Your task to perform on an android device: open app "Venmo" Image 0: 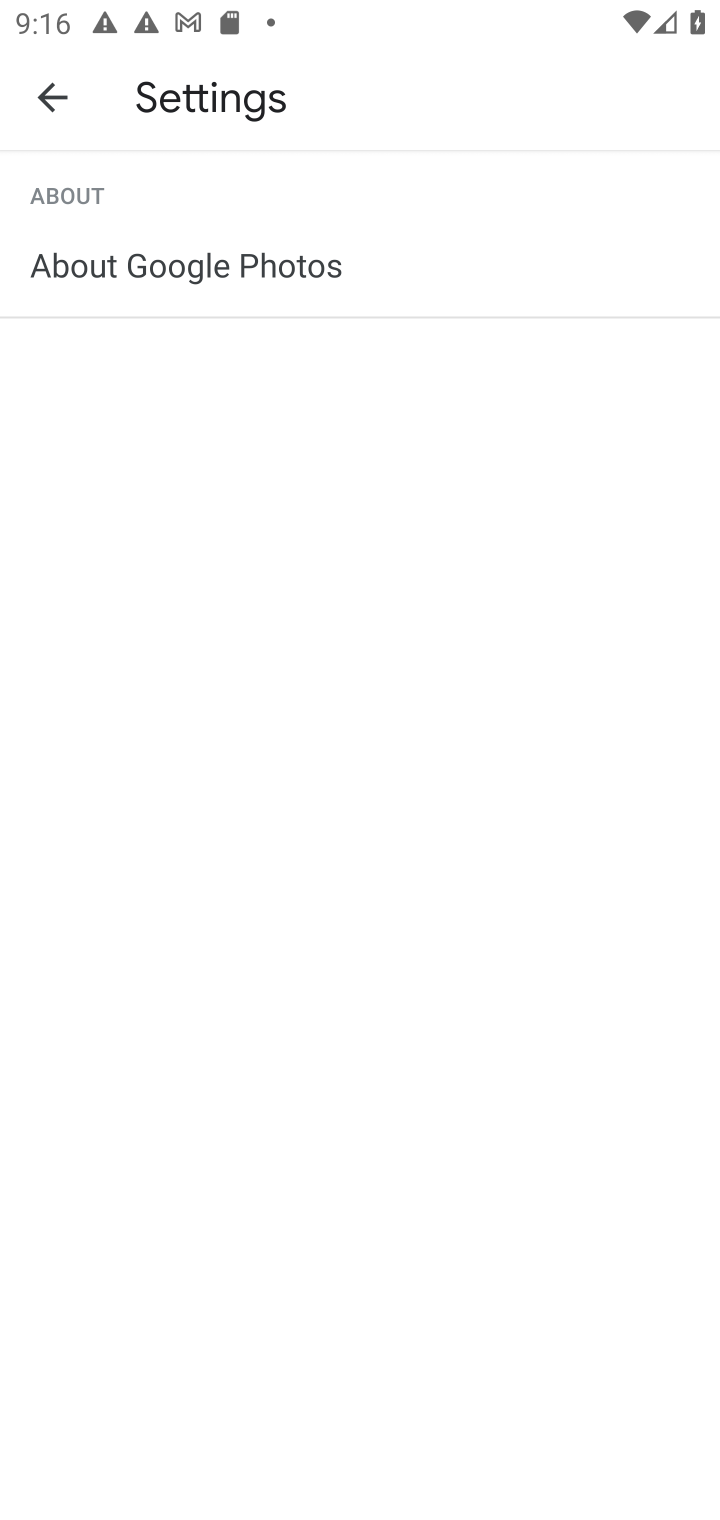
Step 0: press home button
Your task to perform on an android device: open app "Venmo" Image 1: 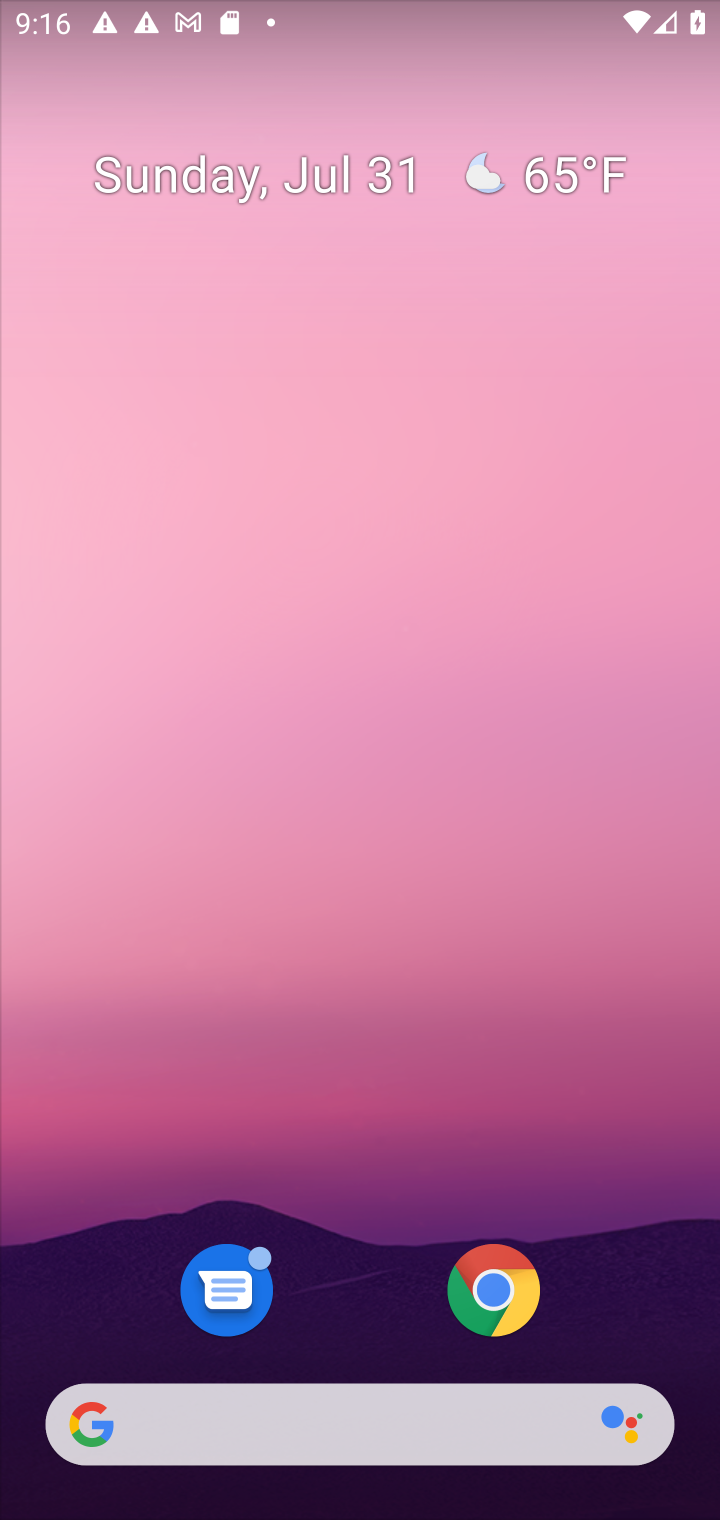
Step 1: drag from (581, 930) to (603, 150)
Your task to perform on an android device: open app "Venmo" Image 2: 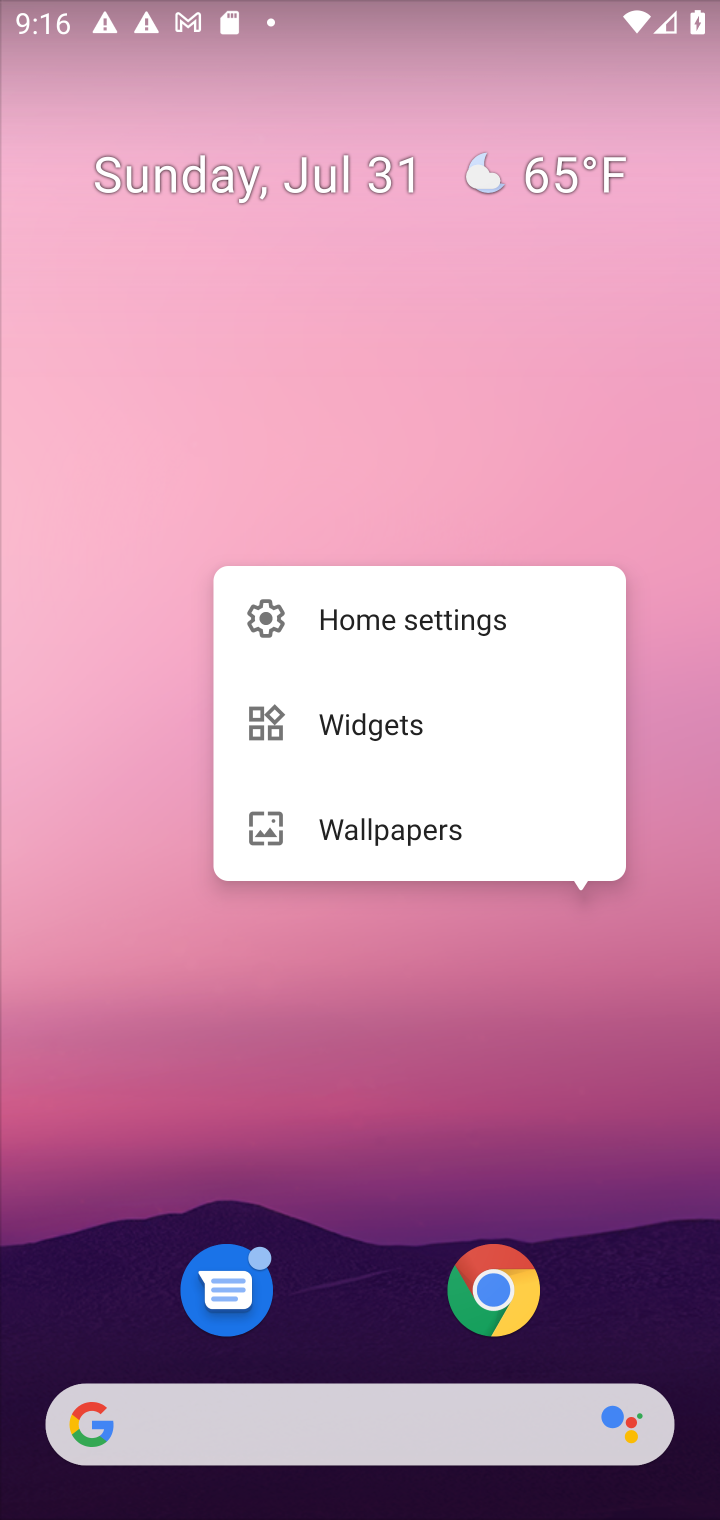
Step 2: click (552, 1212)
Your task to perform on an android device: open app "Venmo" Image 3: 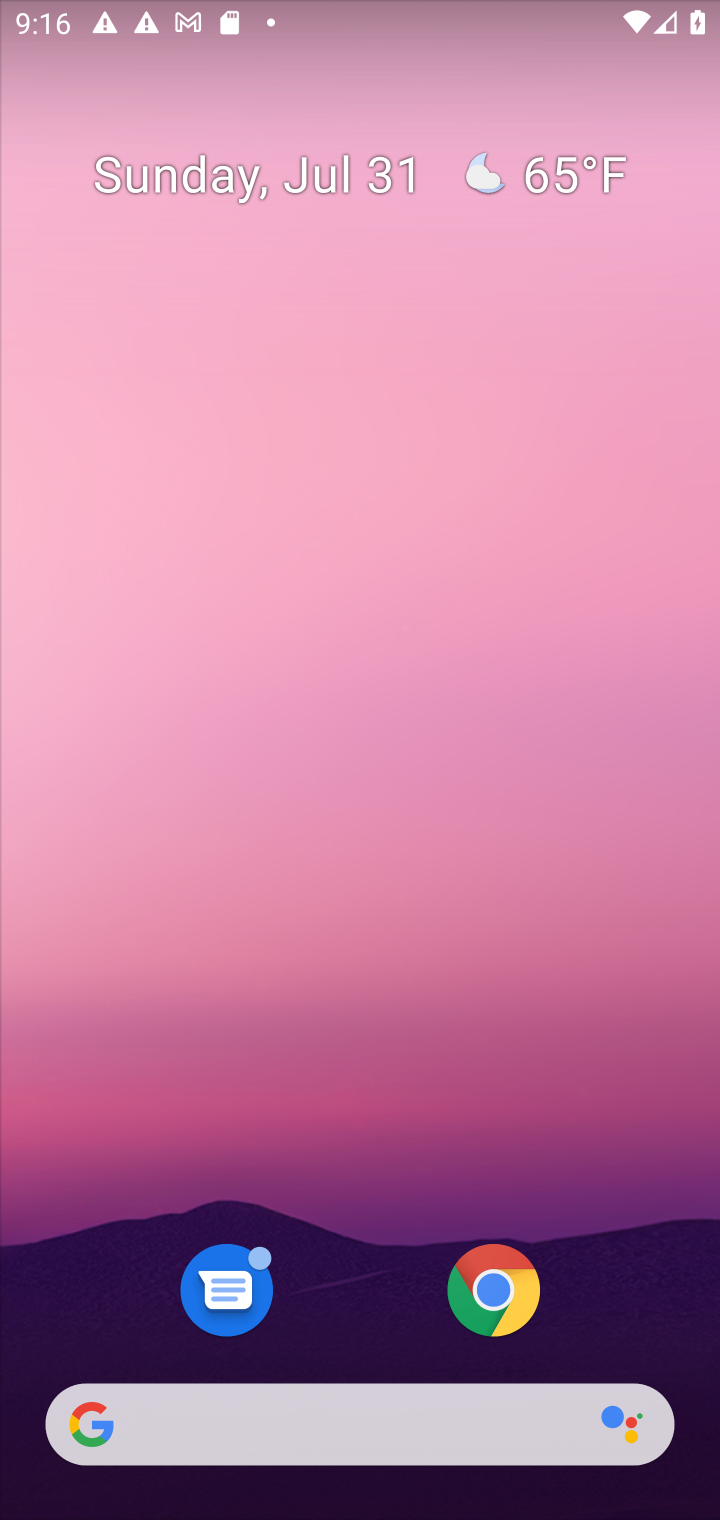
Step 3: drag from (590, 1080) to (587, 75)
Your task to perform on an android device: open app "Venmo" Image 4: 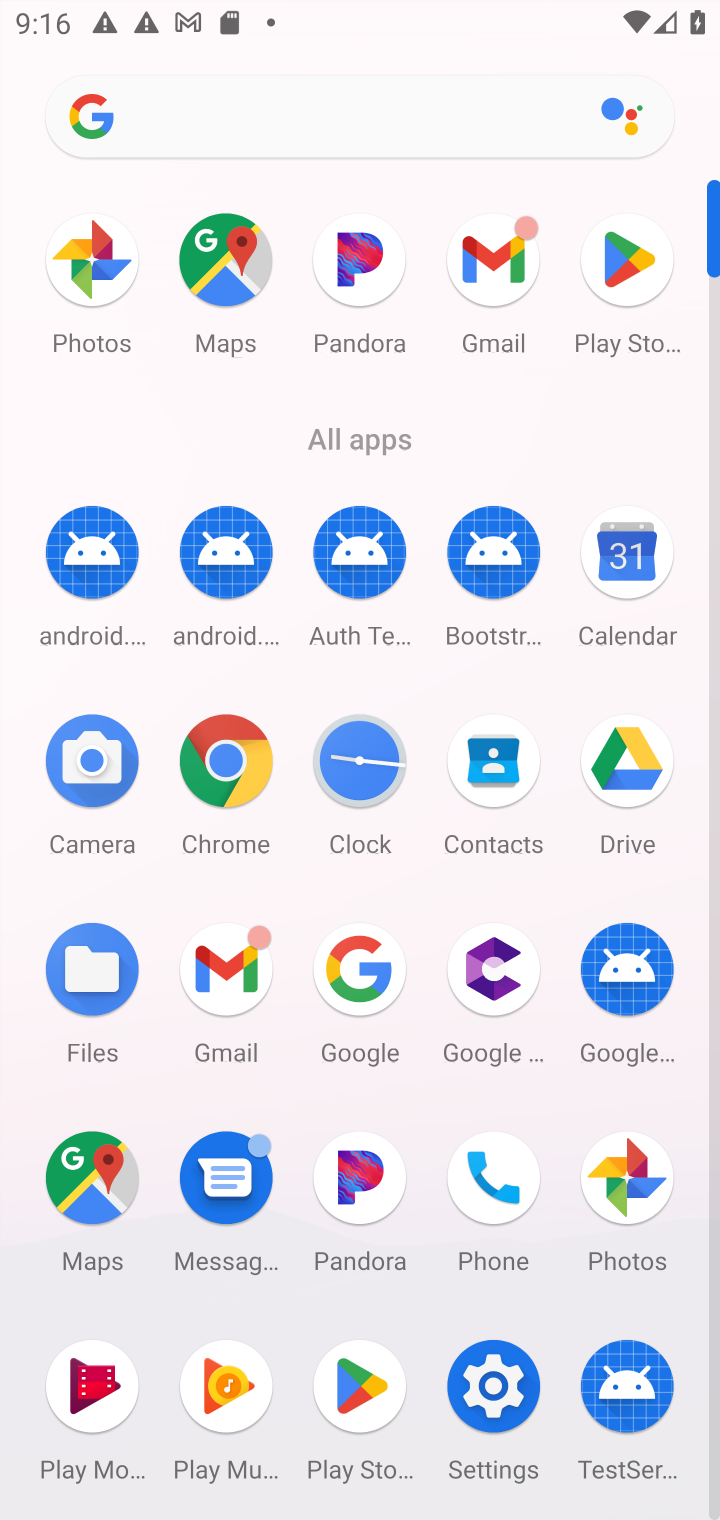
Step 4: click (620, 258)
Your task to perform on an android device: open app "Venmo" Image 5: 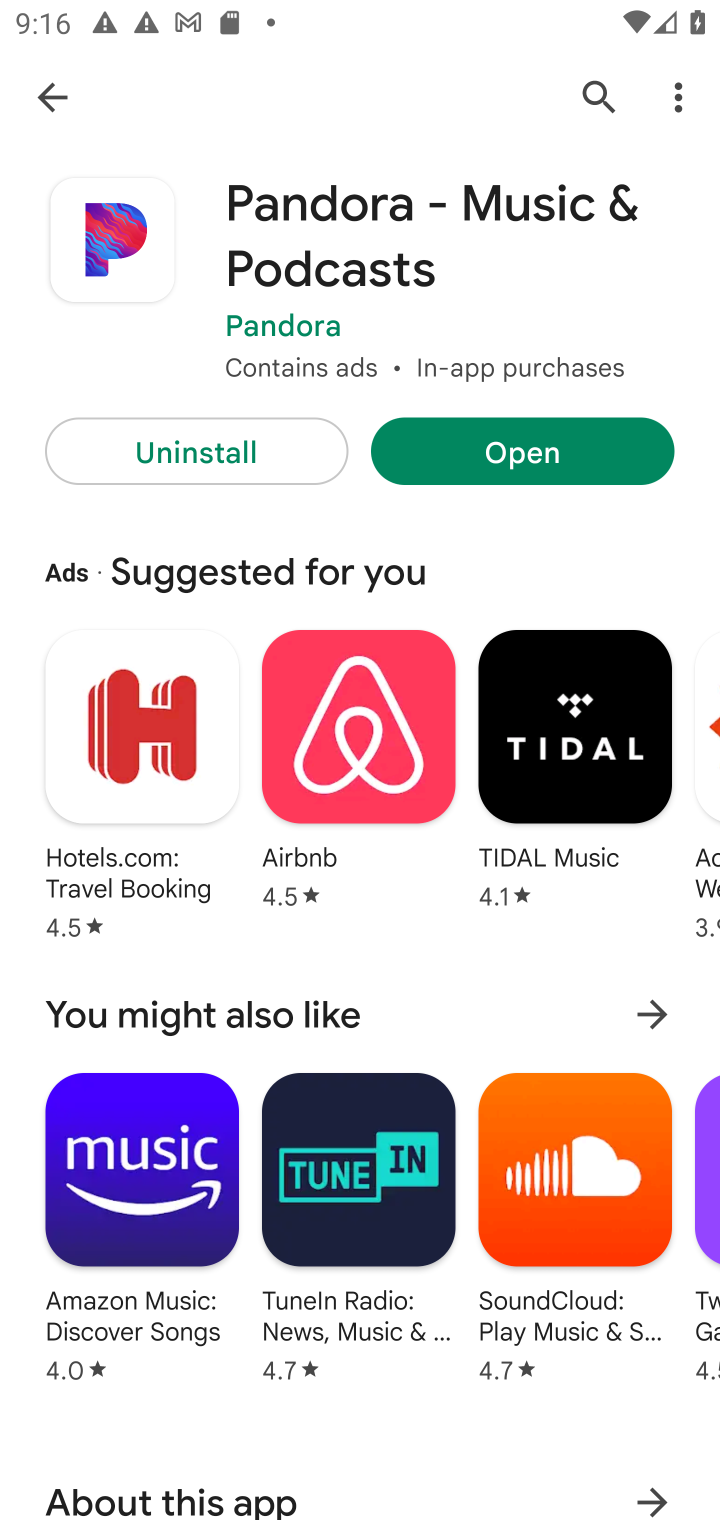
Step 5: press back button
Your task to perform on an android device: open app "Venmo" Image 6: 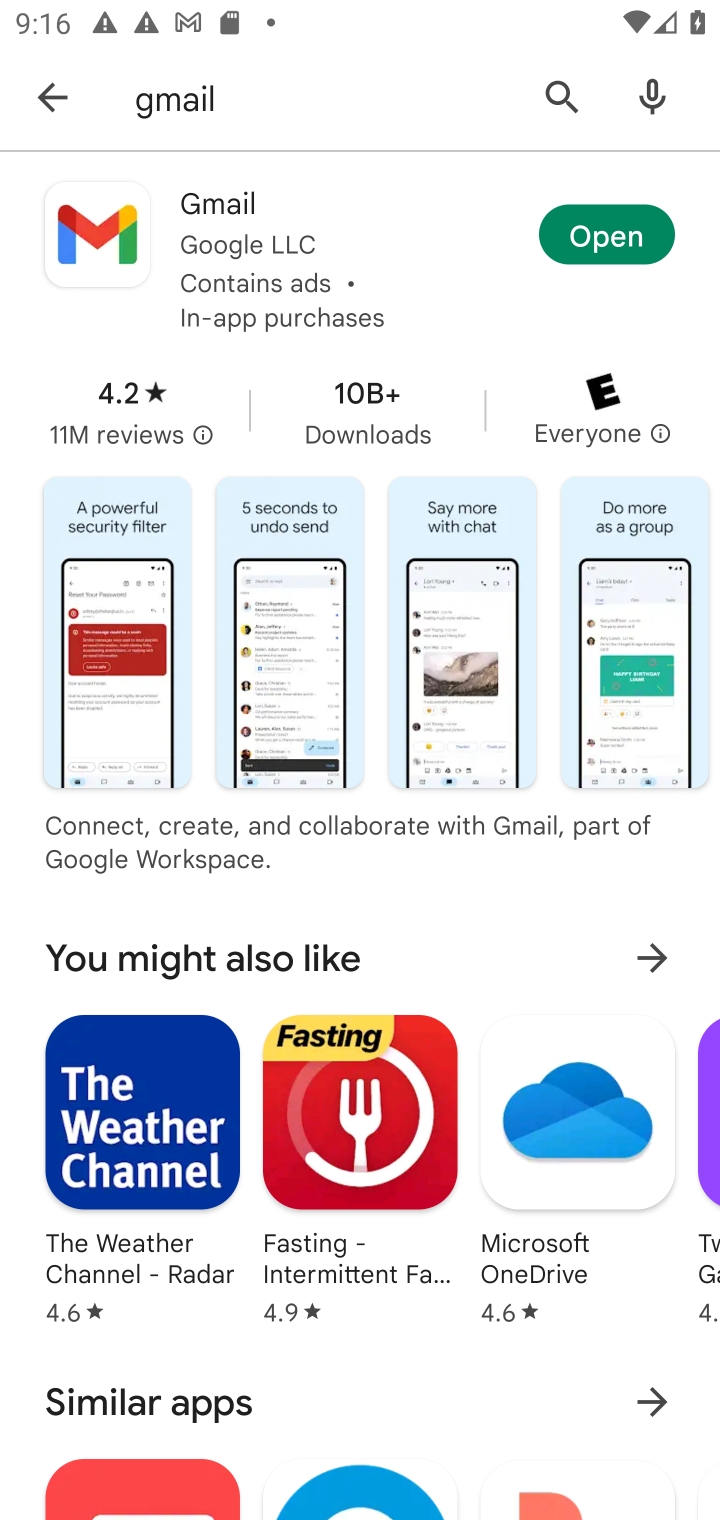
Step 6: click (542, 89)
Your task to perform on an android device: open app "Venmo" Image 7: 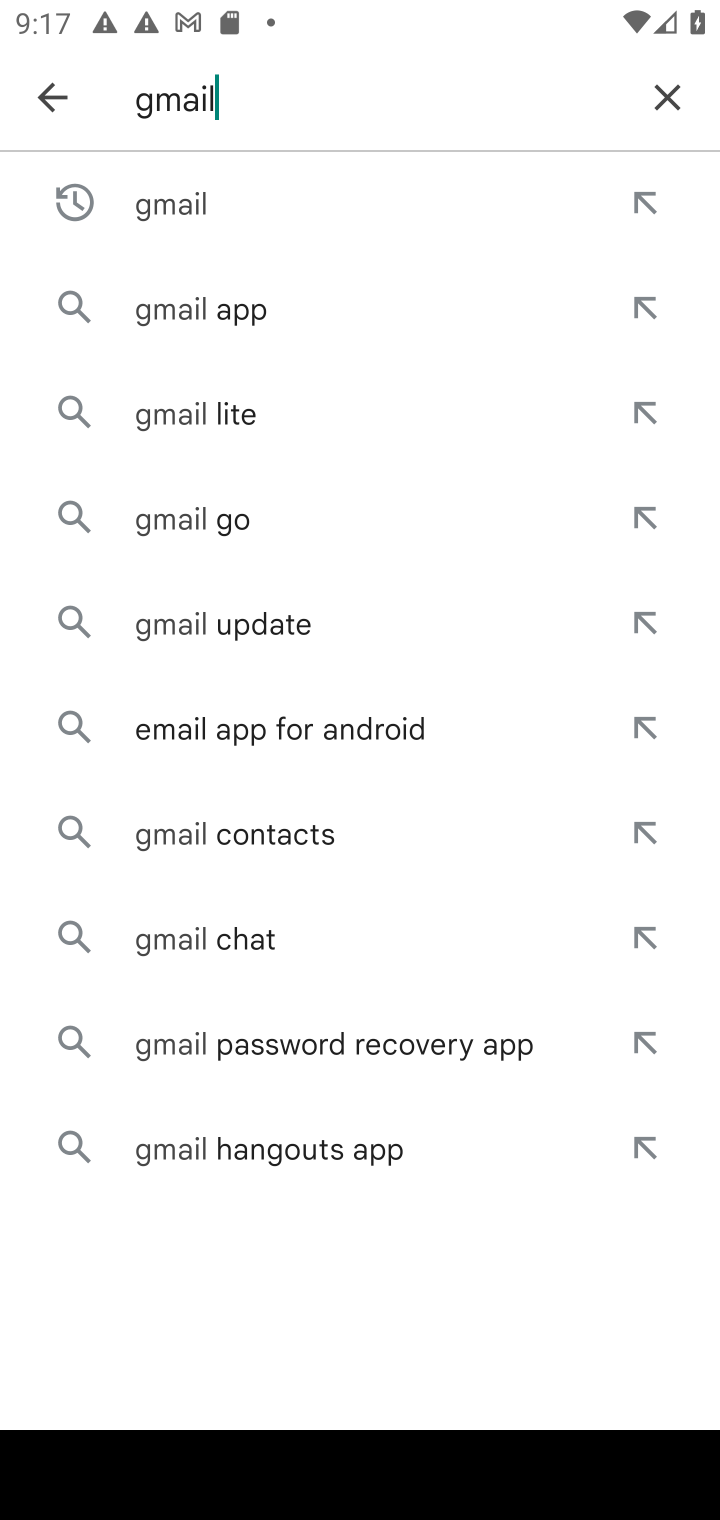
Step 7: click (679, 92)
Your task to perform on an android device: open app "Venmo" Image 8: 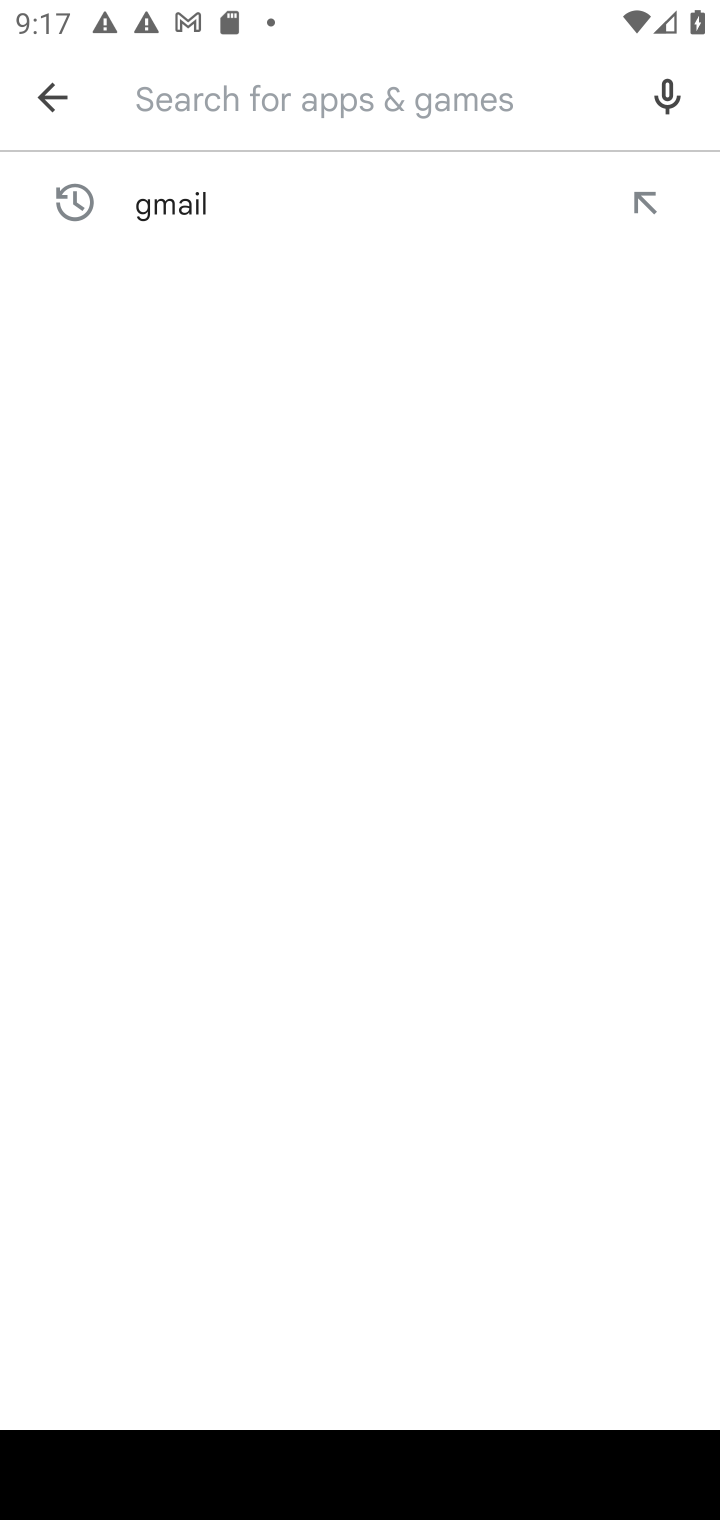
Step 8: type "venmo"
Your task to perform on an android device: open app "Venmo" Image 9: 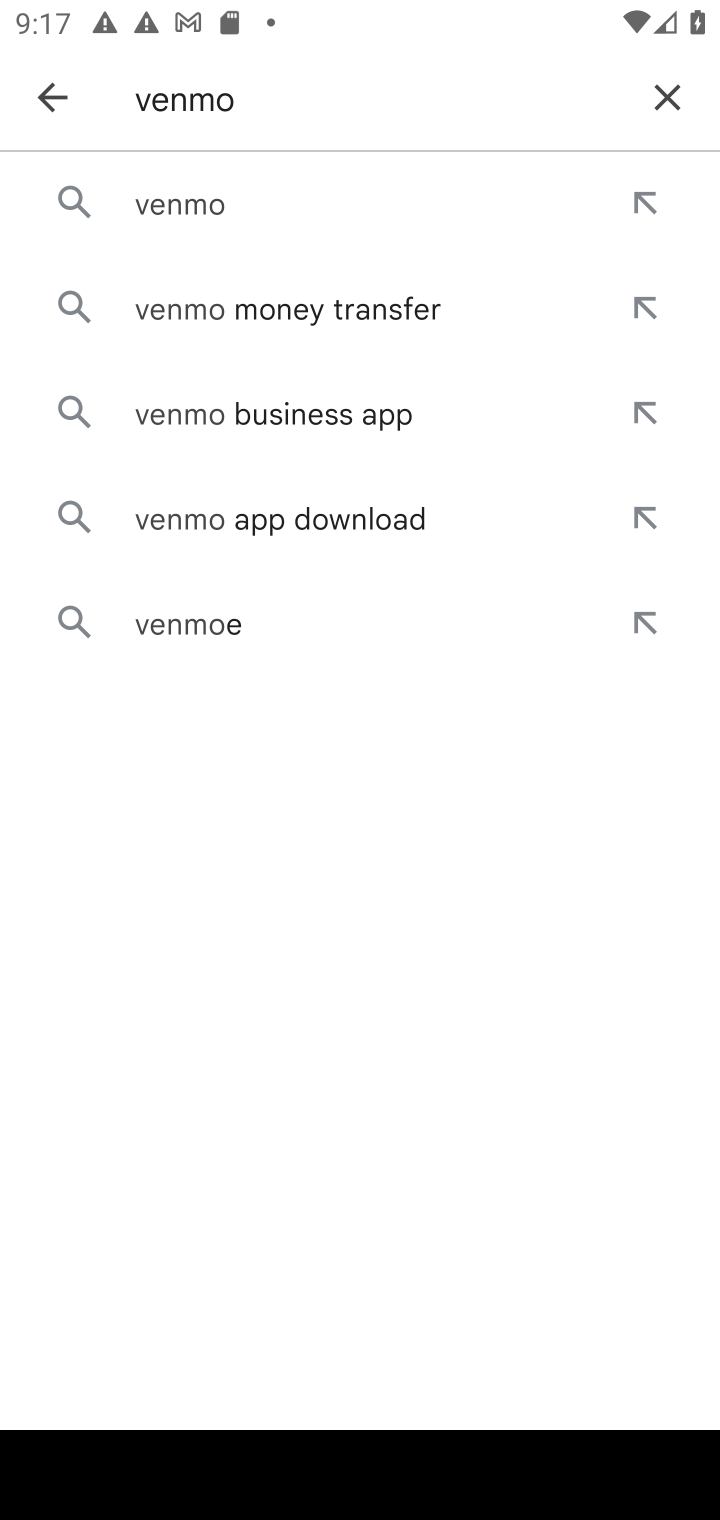
Step 9: click (277, 227)
Your task to perform on an android device: open app "Venmo" Image 10: 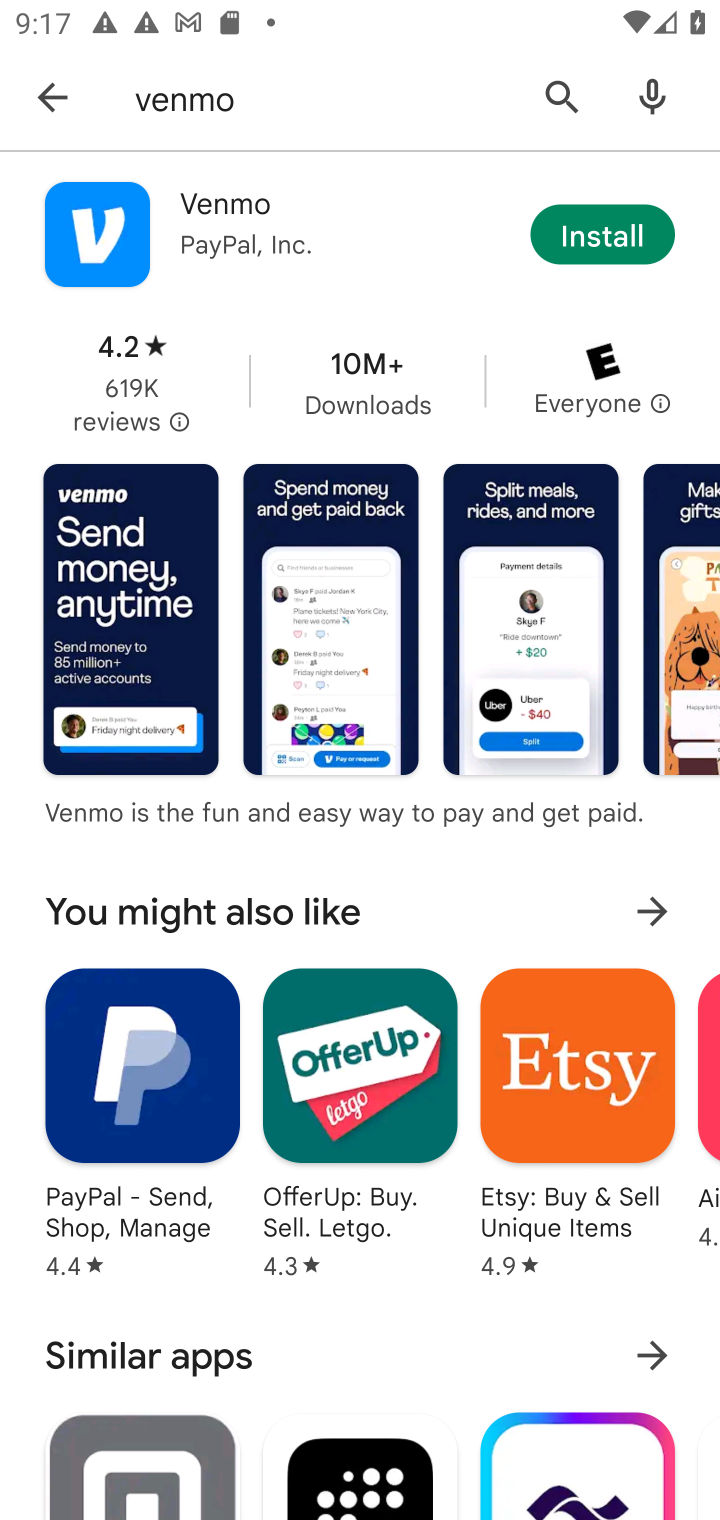
Step 10: task complete